Your task to perform on an android device: turn on javascript in the chrome app Image 0: 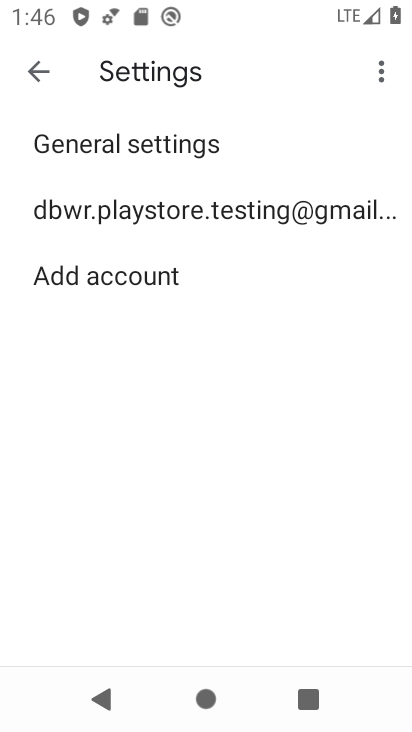
Step 0: press home button
Your task to perform on an android device: turn on javascript in the chrome app Image 1: 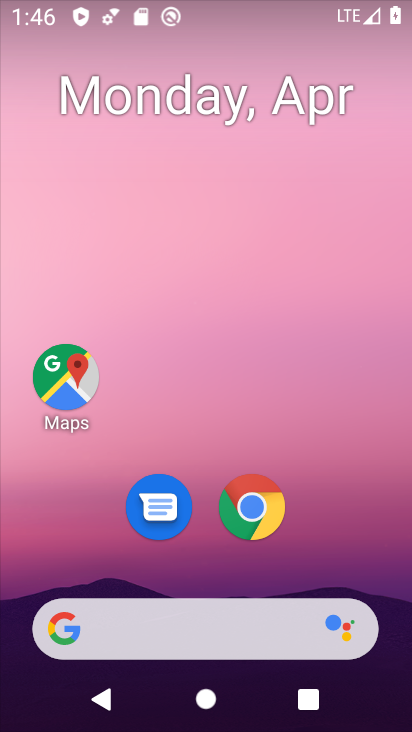
Step 1: click (247, 506)
Your task to perform on an android device: turn on javascript in the chrome app Image 2: 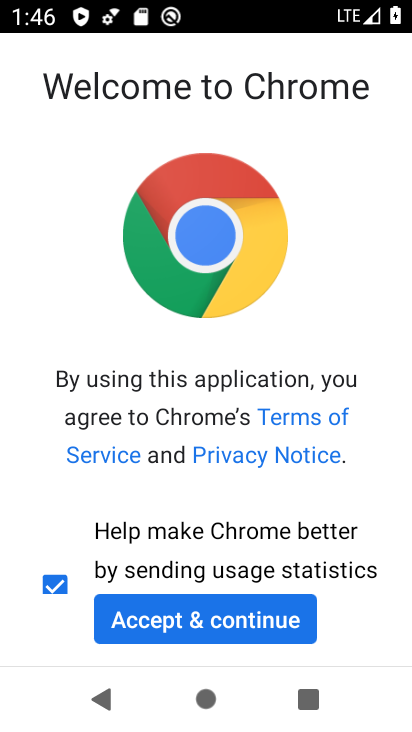
Step 2: click (178, 625)
Your task to perform on an android device: turn on javascript in the chrome app Image 3: 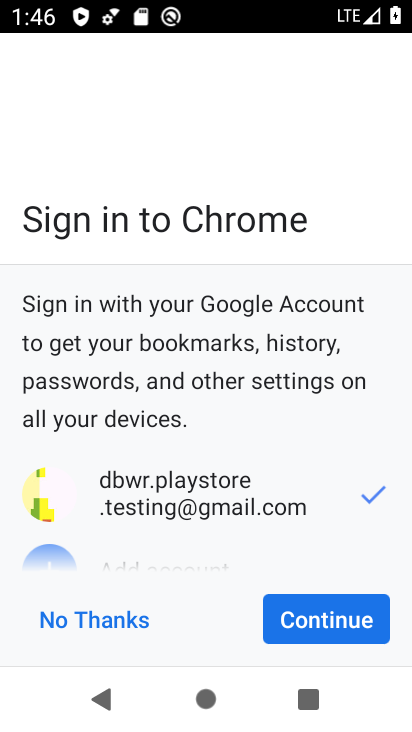
Step 3: click (321, 618)
Your task to perform on an android device: turn on javascript in the chrome app Image 4: 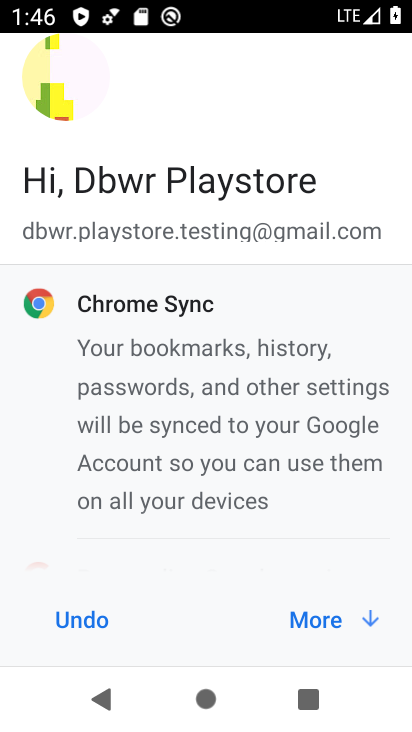
Step 4: click (321, 619)
Your task to perform on an android device: turn on javascript in the chrome app Image 5: 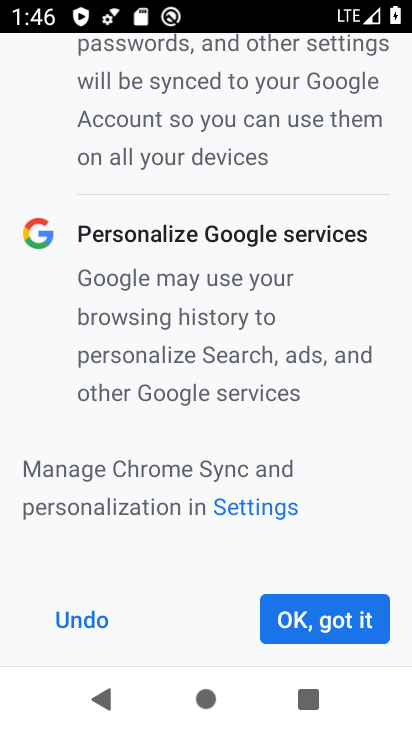
Step 5: click (321, 619)
Your task to perform on an android device: turn on javascript in the chrome app Image 6: 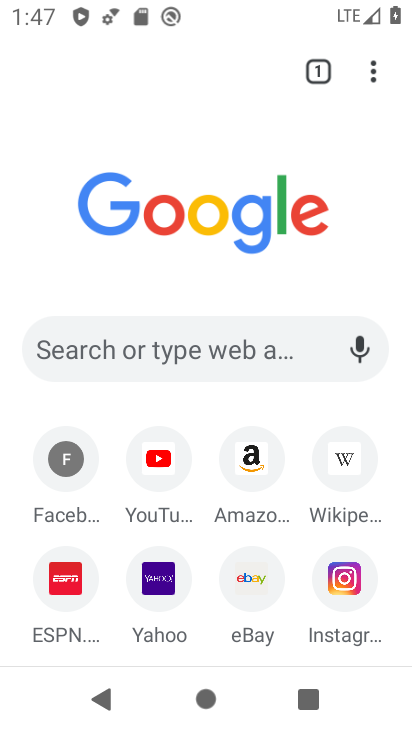
Step 6: click (373, 79)
Your task to perform on an android device: turn on javascript in the chrome app Image 7: 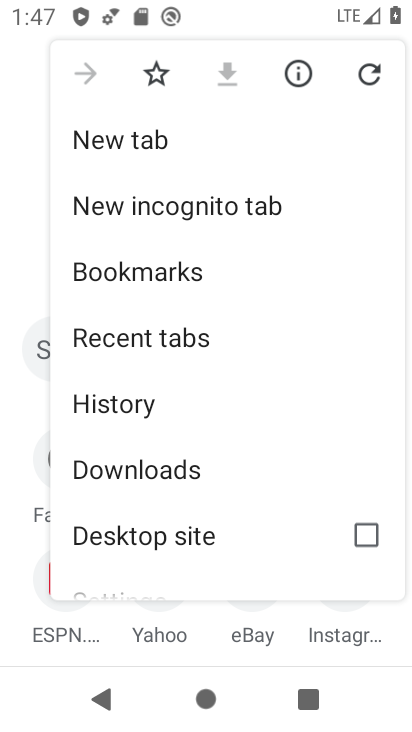
Step 7: drag from (222, 533) to (309, 117)
Your task to perform on an android device: turn on javascript in the chrome app Image 8: 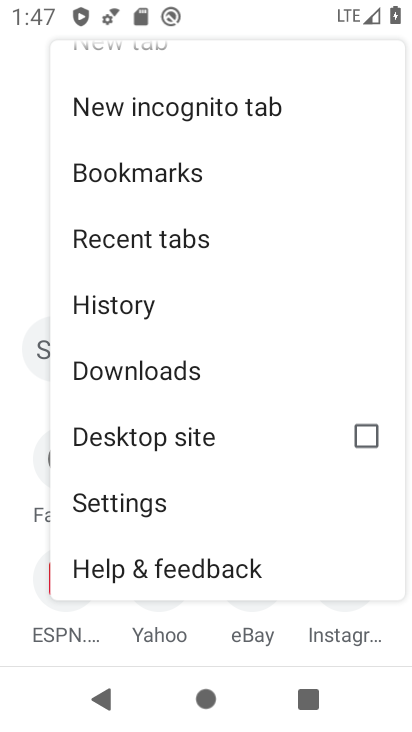
Step 8: click (122, 500)
Your task to perform on an android device: turn on javascript in the chrome app Image 9: 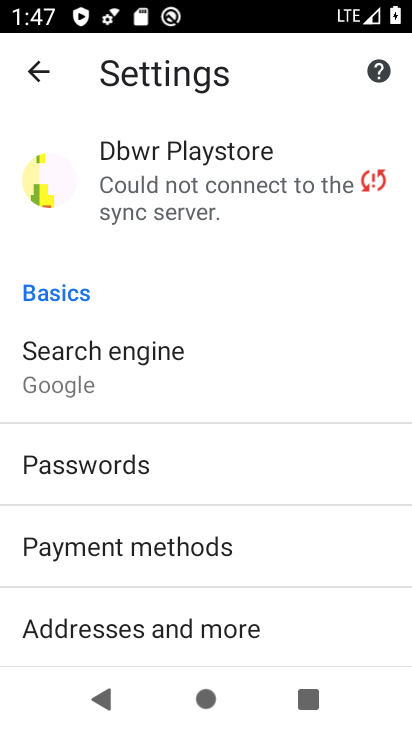
Step 9: drag from (280, 611) to (291, 212)
Your task to perform on an android device: turn on javascript in the chrome app Image 10: 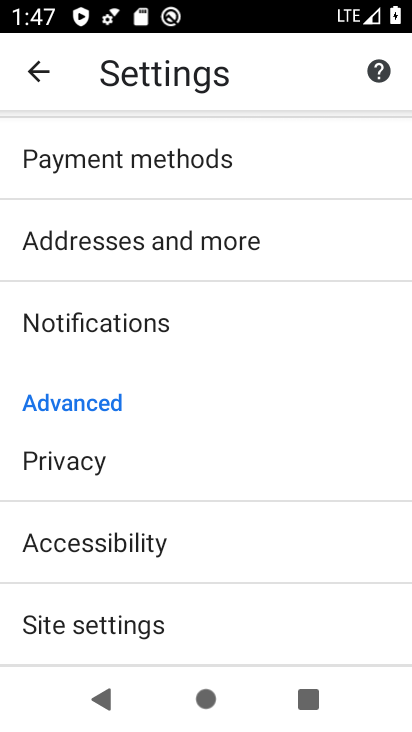
Step 10: drag from (209, 573) to (296, 226)
Your task to perform on an android device: turn on javascript in the chrome app Image 11: 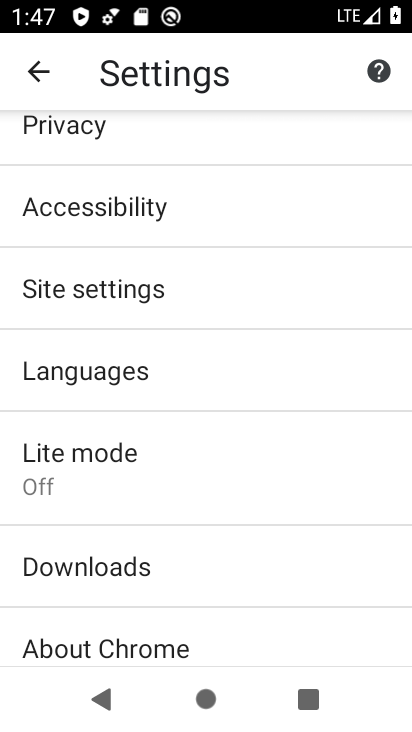
Step 11: click (72, 292)
Your task to perform on an android device: turn on javascript in the chrome app Image 12: 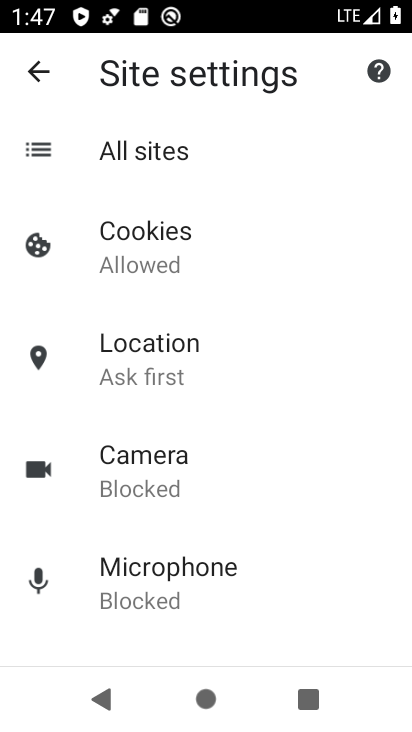
Step 12: drag from (277, 581) to (250, 209)
Your task to perform on an android device: turn on javascript in the chrome app Image 13: 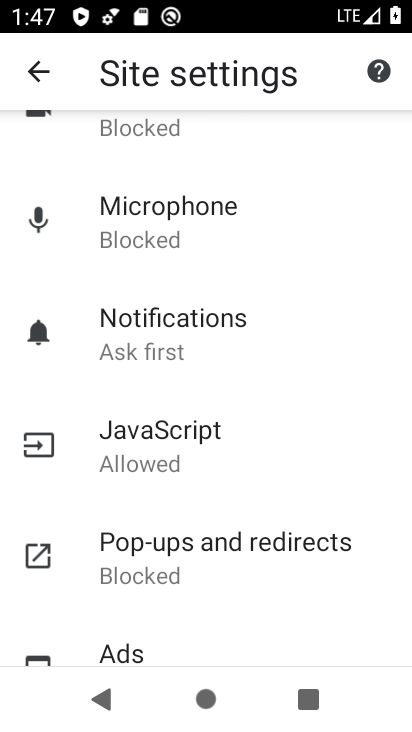
Step 13: click (131, 450)
Your task to perform on an android device: turn on javascript in the chrome app Image 14: 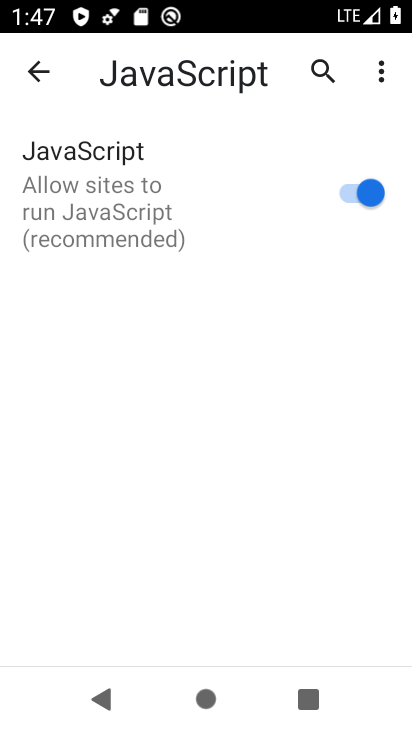
Step 14: task complete